Your task to perform on an android device: remove spam from my inbox in the gmail app Image 0: 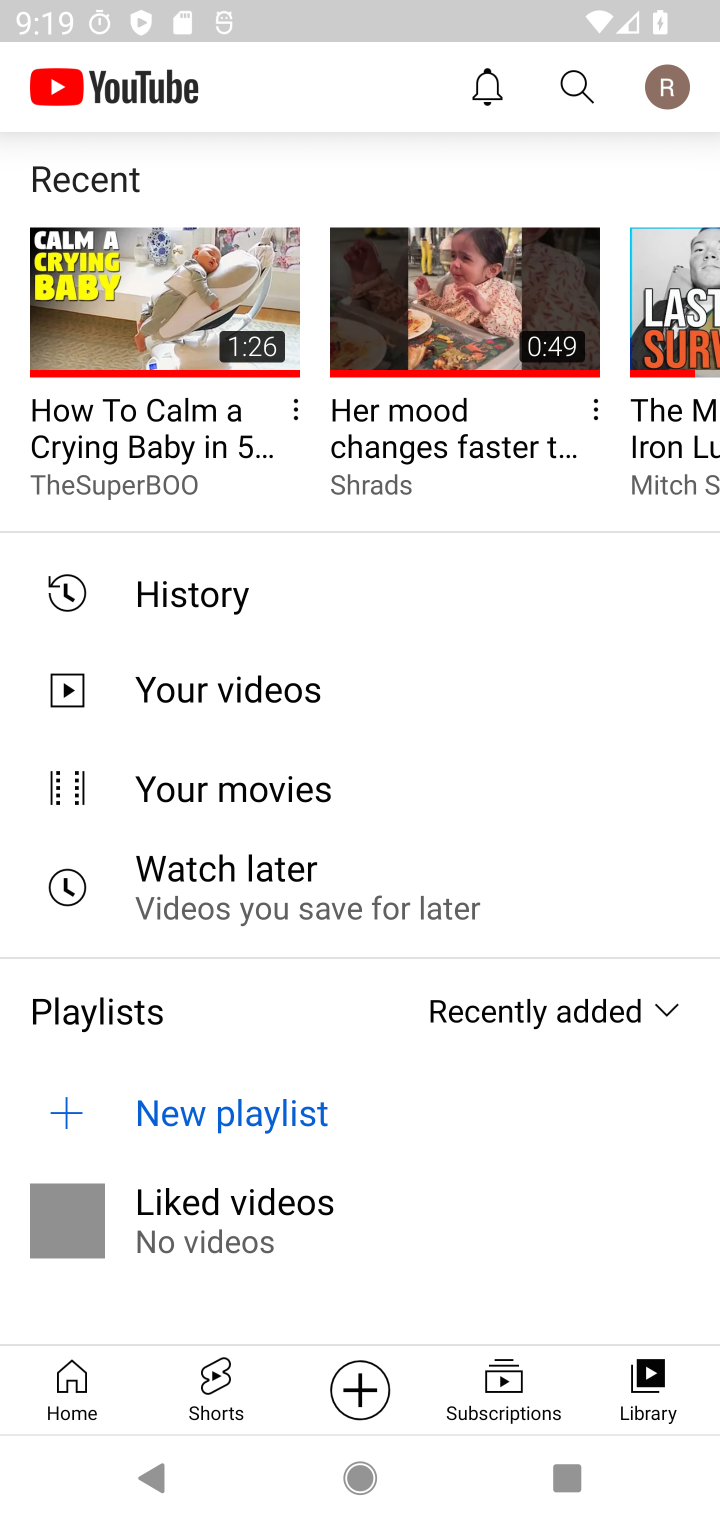
Step 0: press home button
Your task to perform on an android device: remove spam from my inbox in the gmail app Image 1: 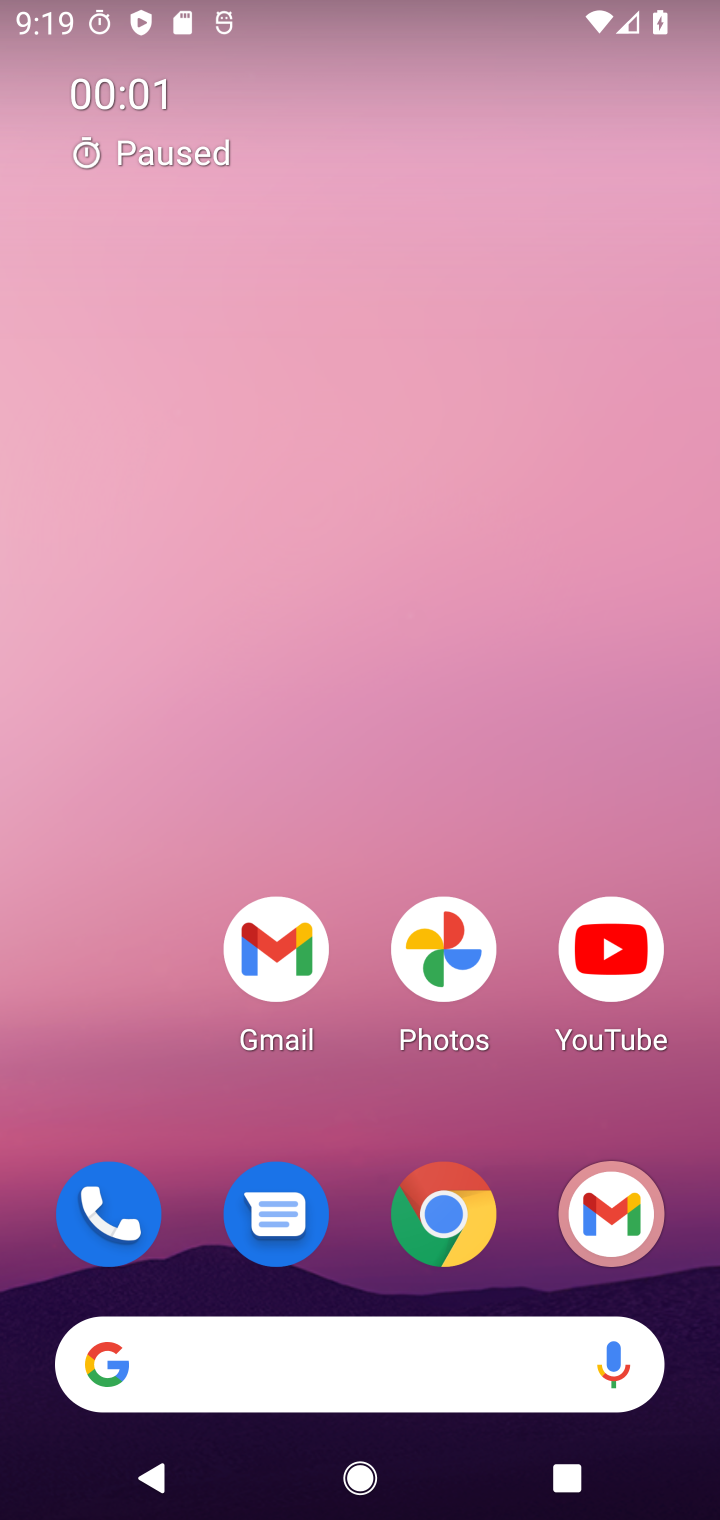
Step 1: click (263, 961)
Your task to perform on an android device: remove spam from my inbox in the gmail app Image 2: 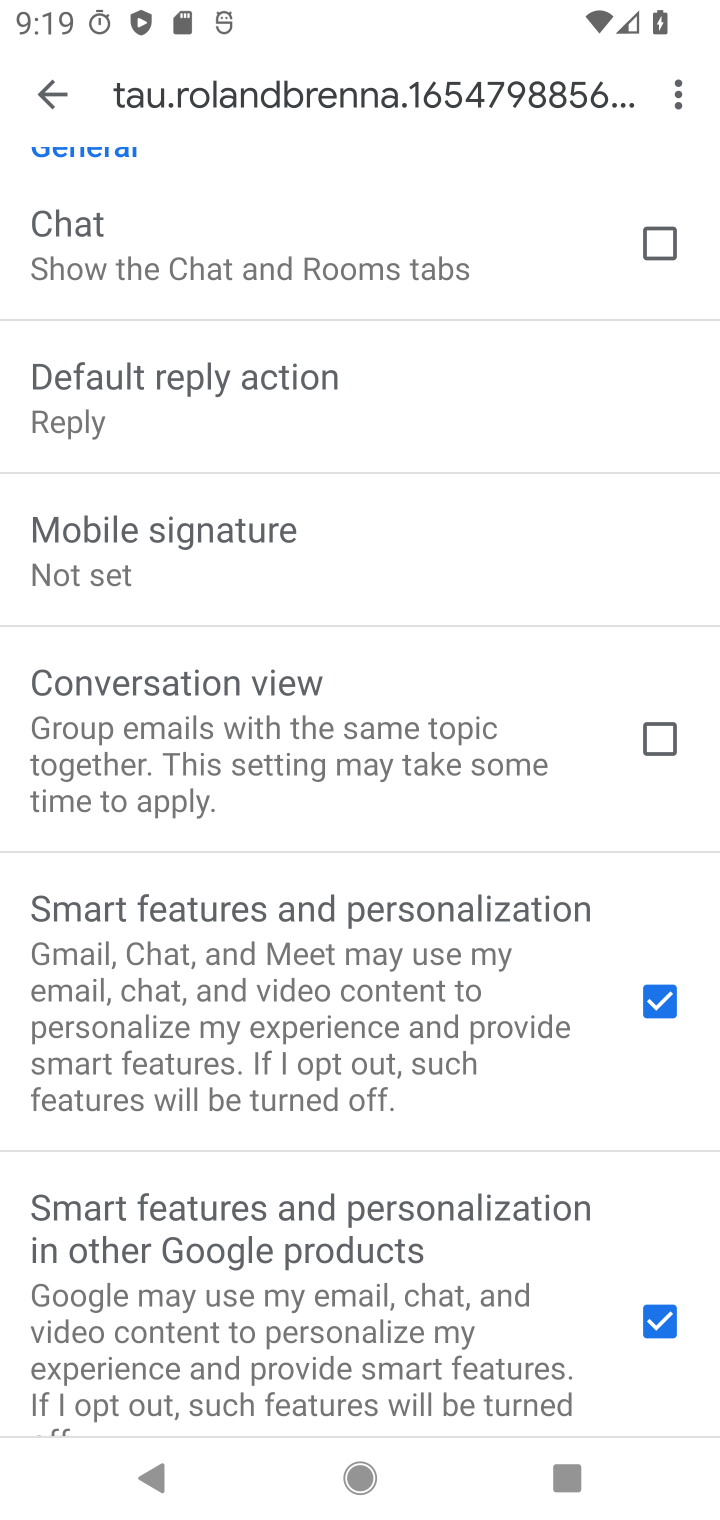
Step 2: click (48, 110)
Your task to perform on an android device: remove spam from my inbox in the gmail app Image 3: 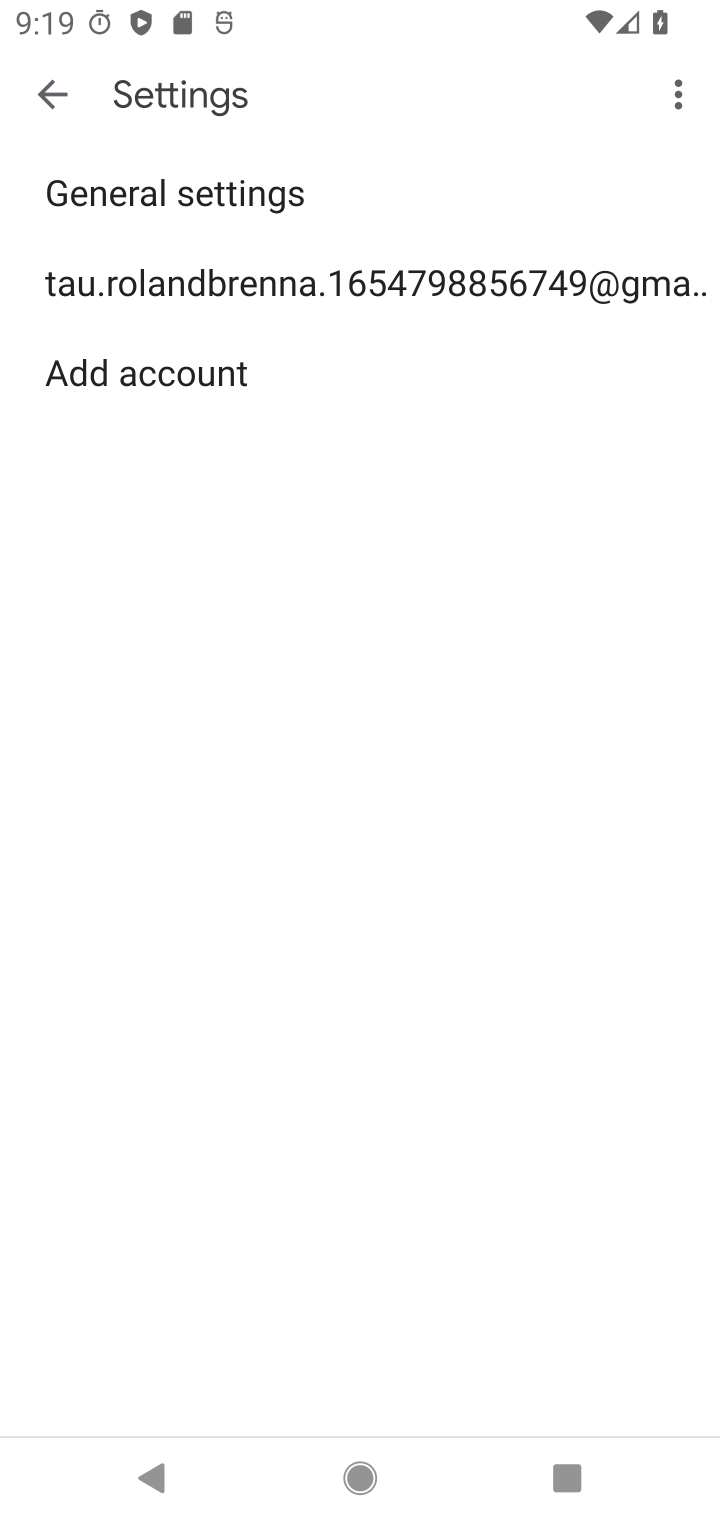
Step 3: click (48, 110)
Your task to perform on an android device: remove spam from my inbox in the gmail app Image 4: 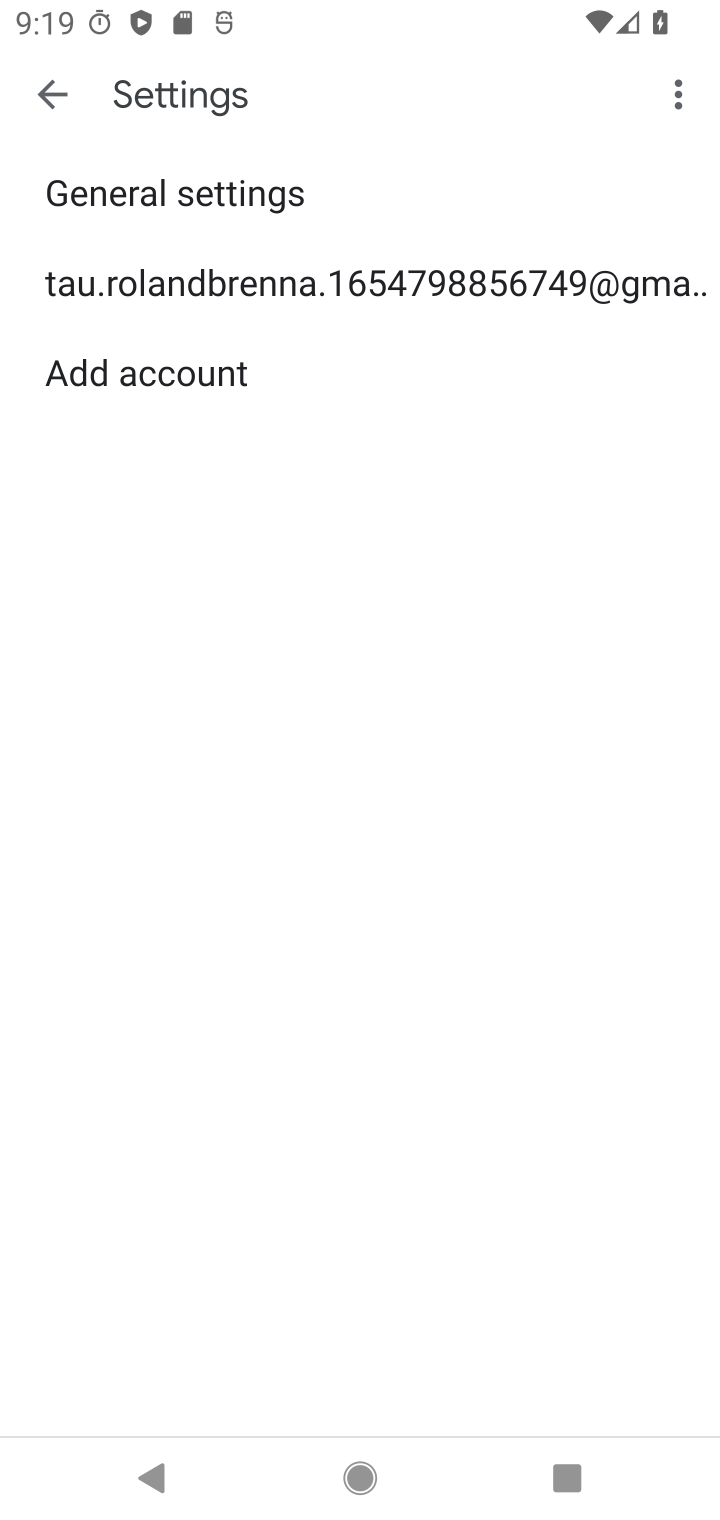
Step 4: click (48, 110)
Your task to perform on an android device: remove spam from my inbox in the gmail app Image 5: 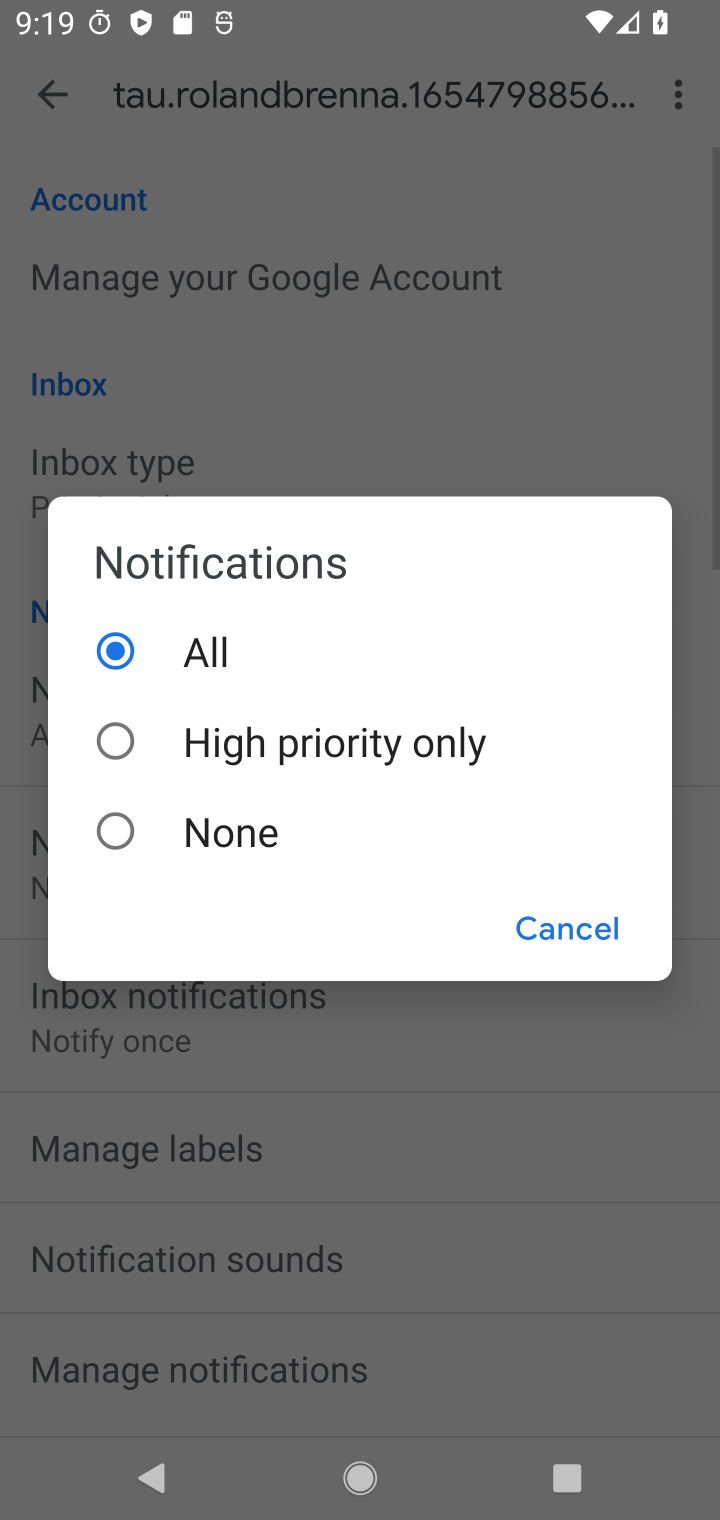
Step 5: click (549, 934)
Your task to perform on an android device: remove spam from my inbox in the gmail app Image 6: 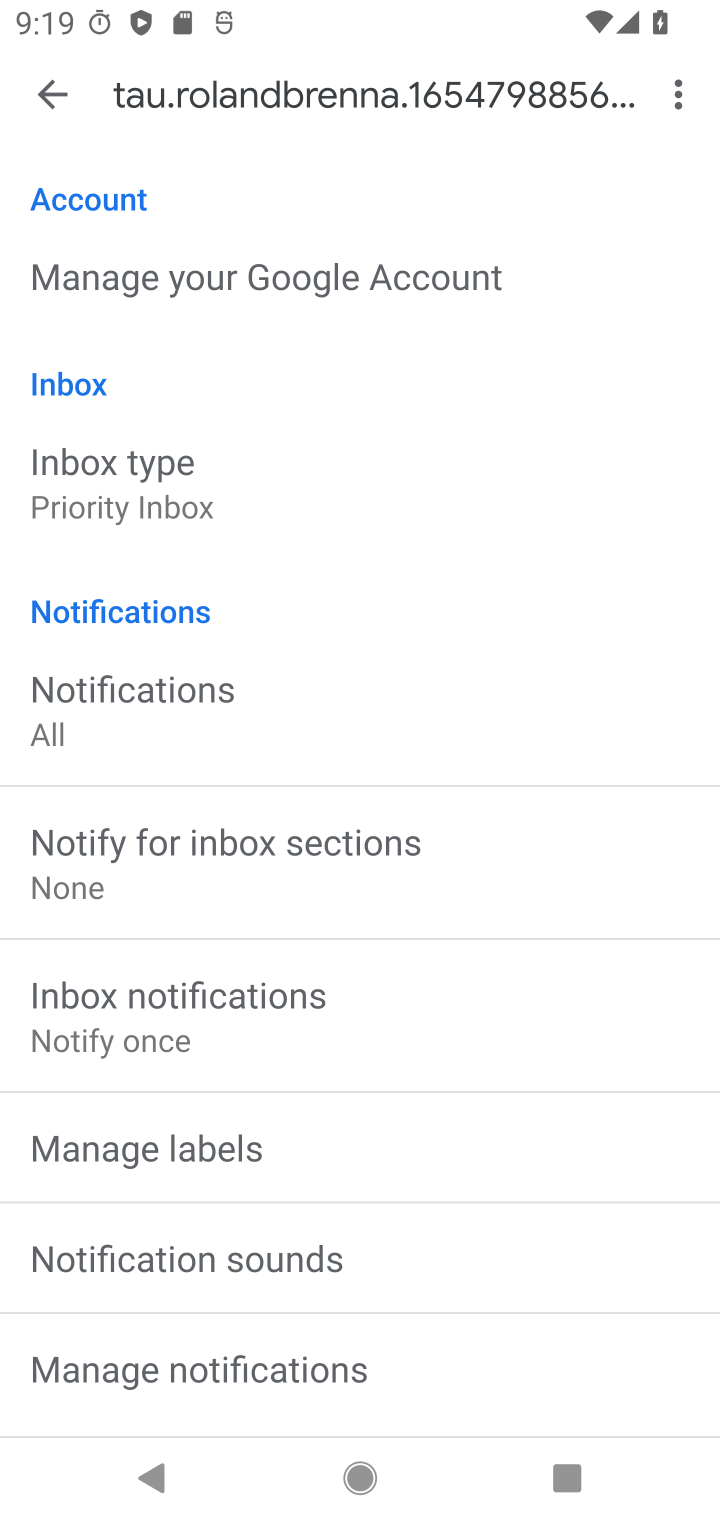
Step 6: click (54, 100)
Your task to perform on an android device: remove spam from my inbox in the gmail app Image 7: 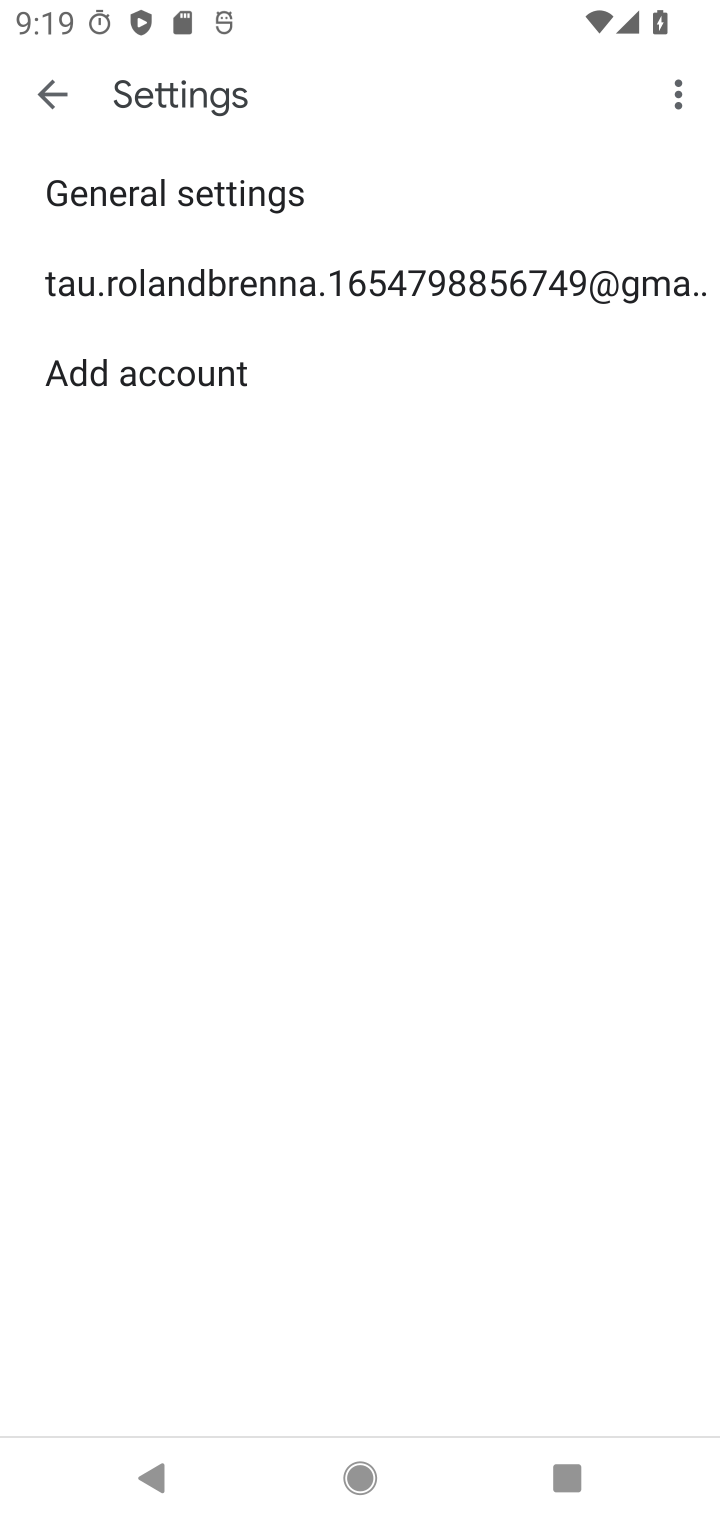
Step 7: click (54, 100)
Your task to perform on an android device: remove spam from my inbox in the gmail app Image 8: 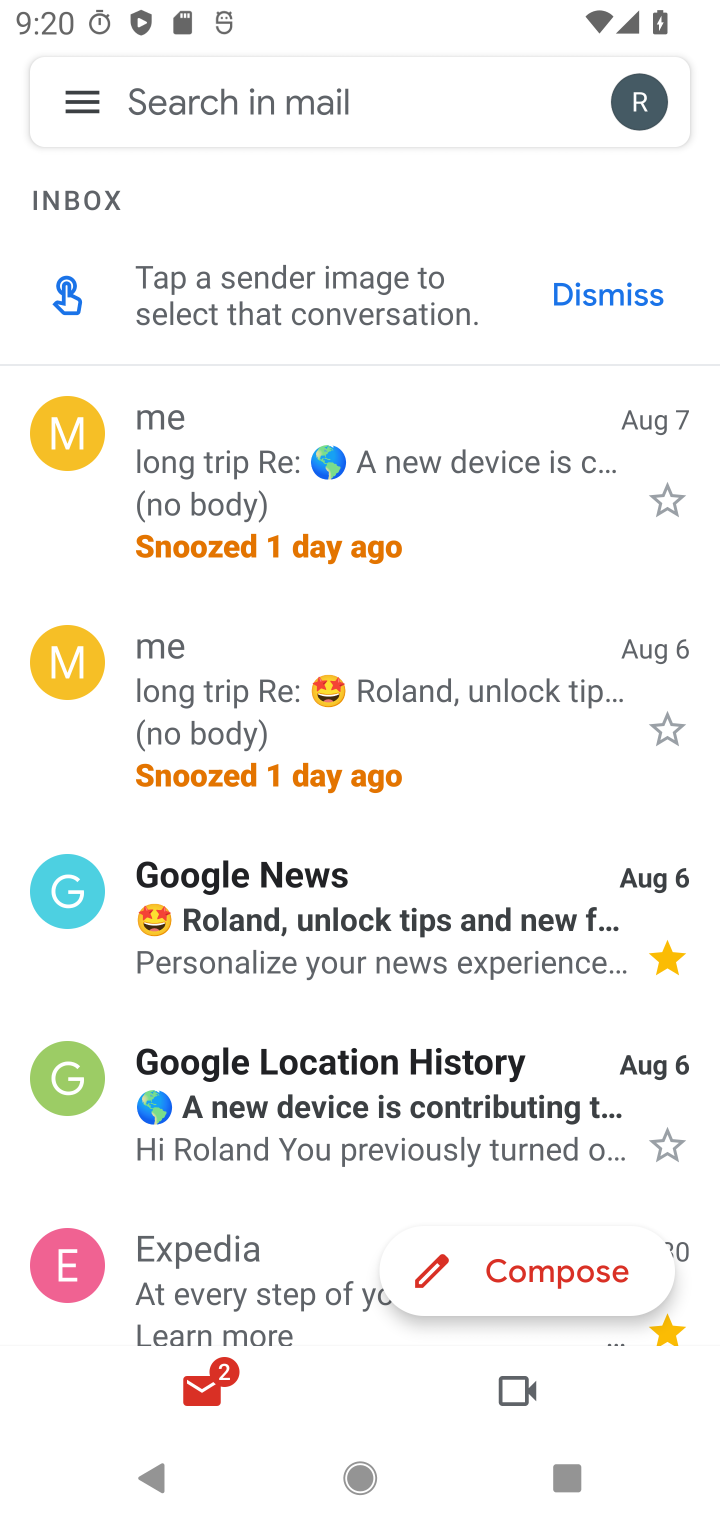
Step 8: click (84, 106)
Your task to perform on an android device: remove spam from my inbox in the gmail app Image 9: 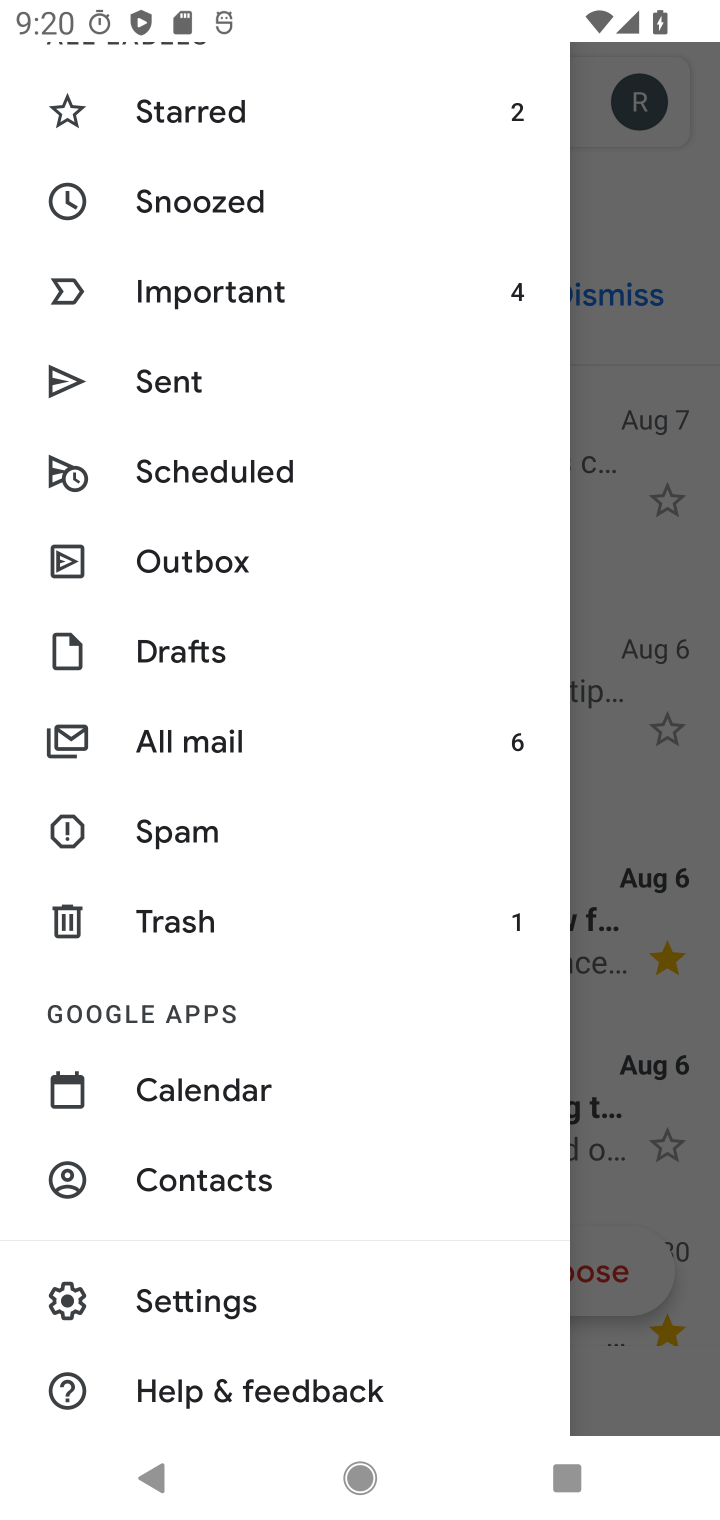
Step 9: click (211, 854)
Your task to perform on an android device: remove spam from my inbox in the gmail app Image 10: 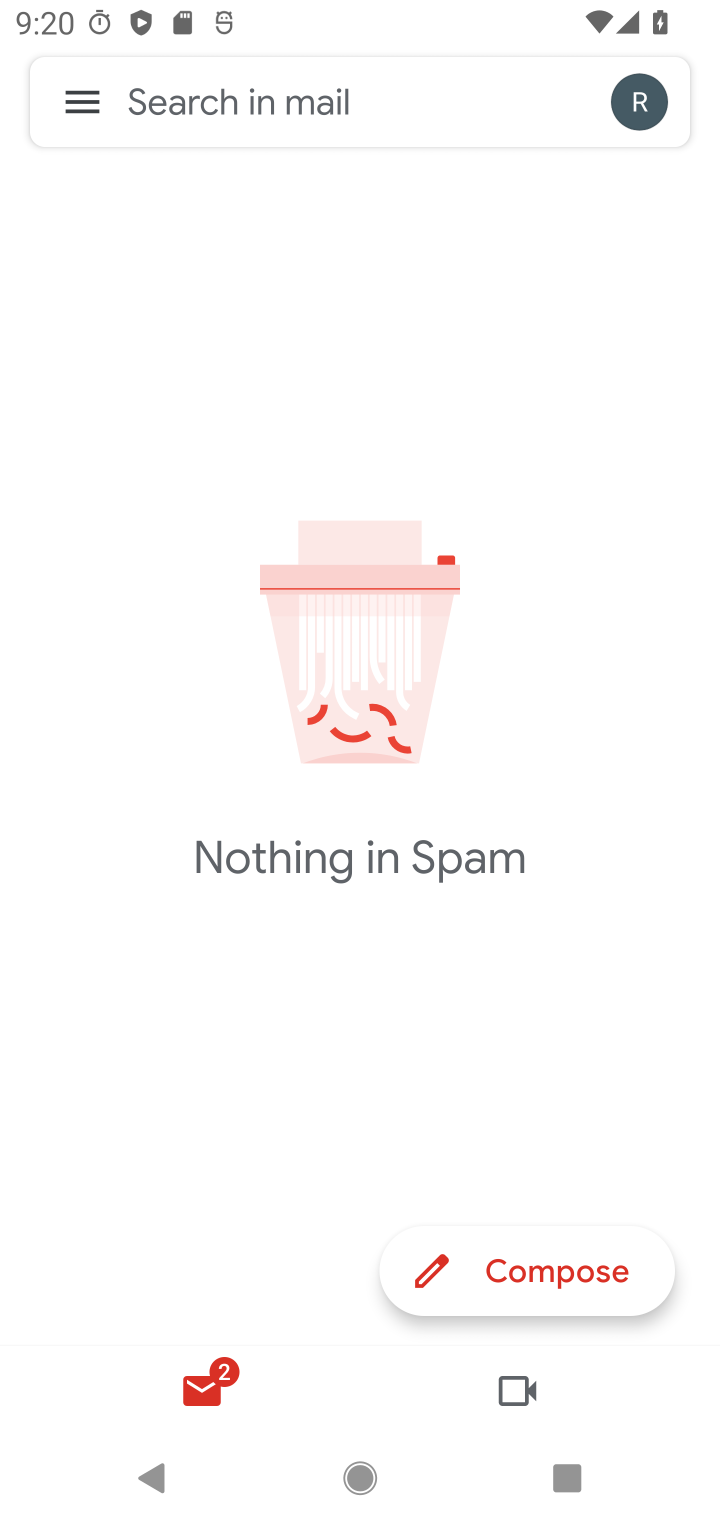
Step 10: task complete